Your task to perform on an android device: Is it going to rain today? Image 0: 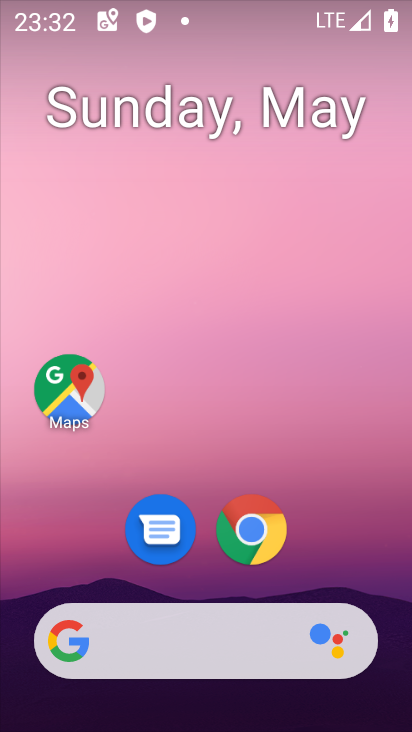
Step 0: click (337, 94)
Your task to perform on an android device: Is it going to rain today? Image 1: 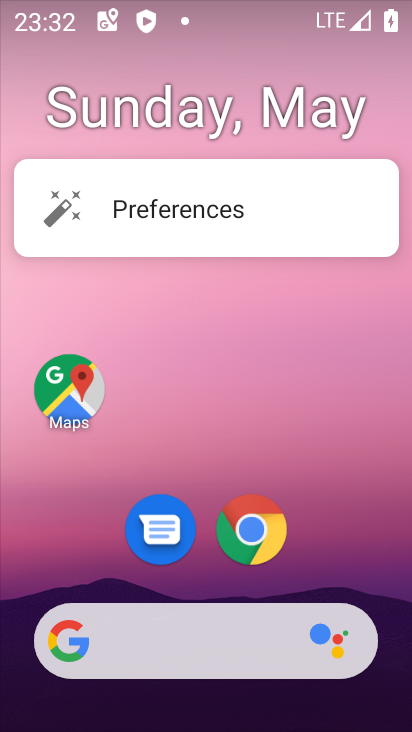
Step 1: drag from (358, 552) to (370, 157)
Your task to perform on an android device: Is it going to rain today? Image 2: 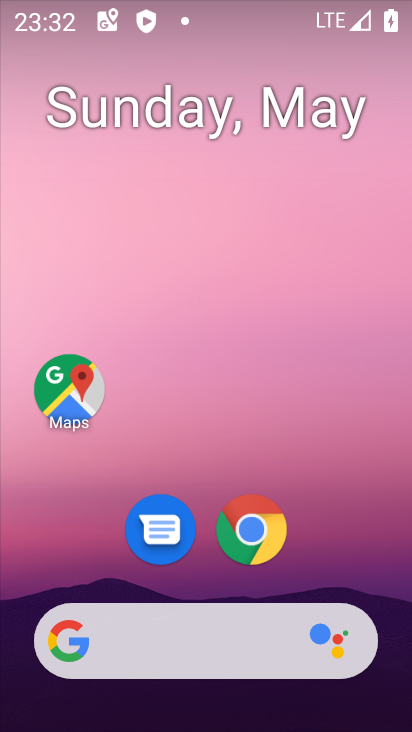
Step 2: drag from (366, 559) to (375, 122)
Your task to perform on an android device: Is it going to rain today? Image 3: 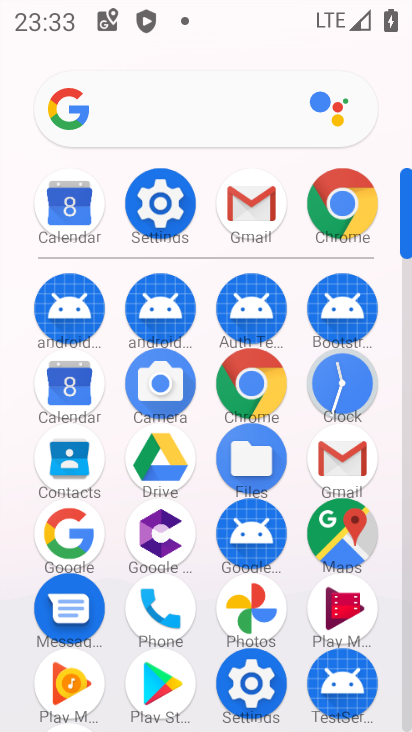
Step 3: click (268, 386)
Your task to perform on an android device: Is it going to rain today? Image 4: 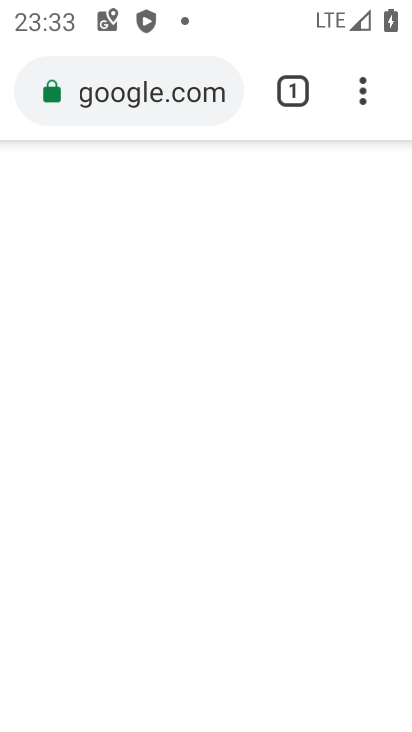
Step 4: click (156, 112)
Your task to perform on an android device: Is it going to rain today? Image 5: 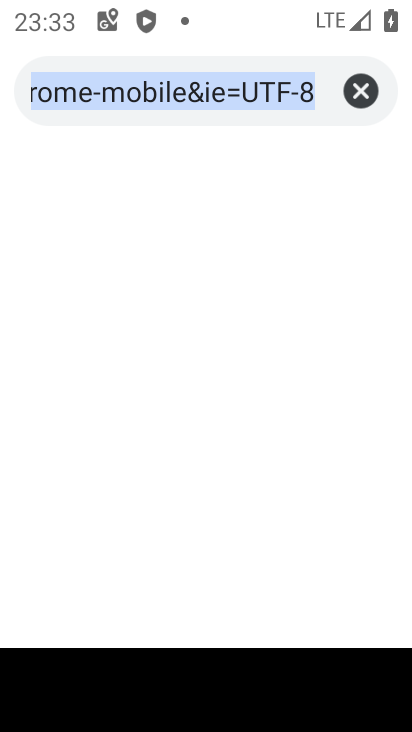
Step 5: click (362, 94)
Your task to perform on an android device: Is it going to rain today? Image 6: 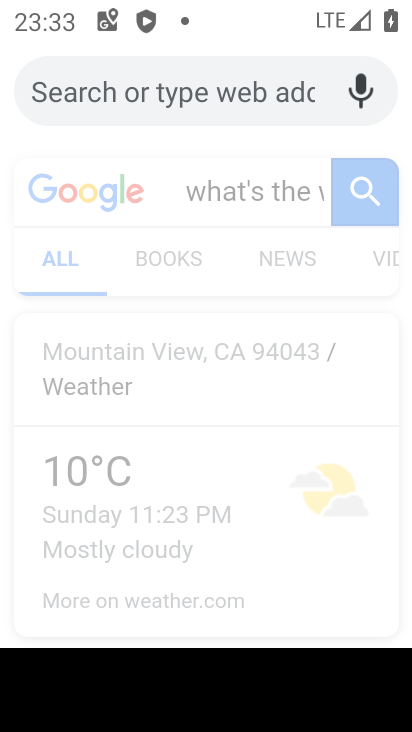
Step 6: type "is it going to rain today"
Your task to perform on an android device: Is it going to rain today? Image 7: 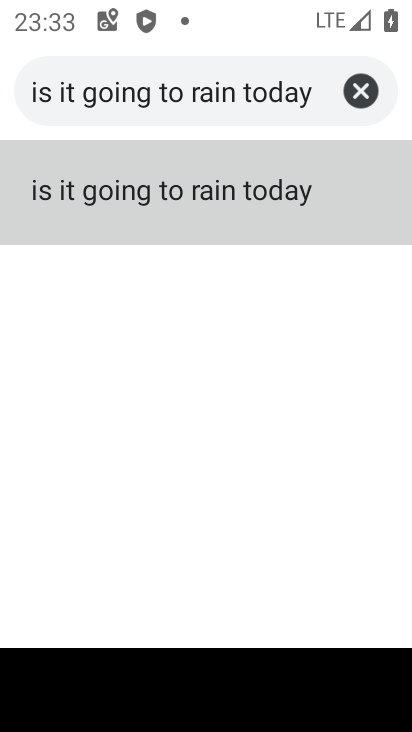
Step 7: click (202, 201)
Your task to perform on an android device: Is it going to rain today? Image 8: 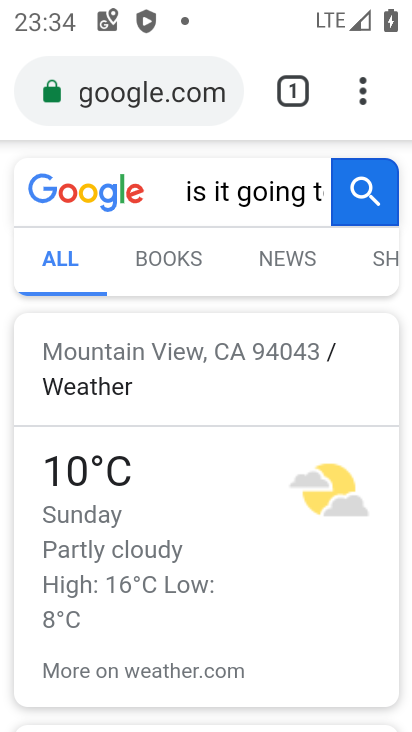
Step 8: task complete